Your task to perform on an android device: change the upload size in google photos Image 0: 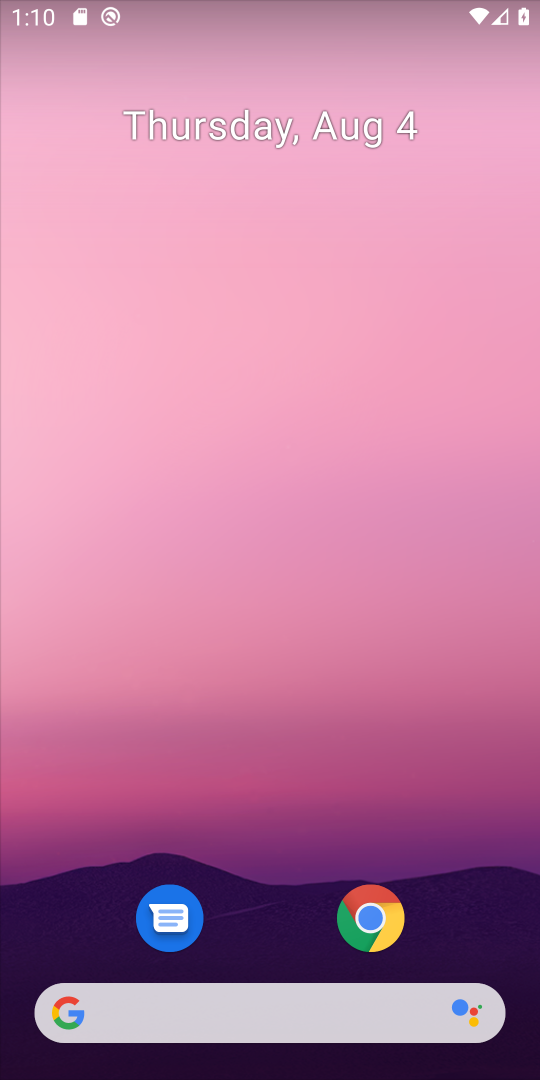
Step 0: drag from (222, 912) to (184, 325)
Your task to perform on an android device: change the upload size in google photos Image 1: 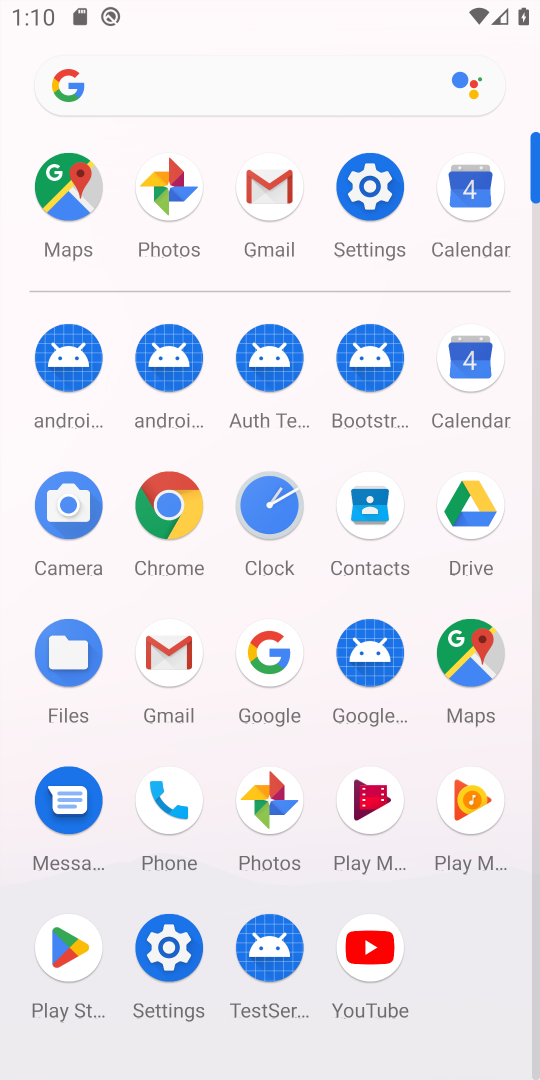
Step 1: click (144, 198)
Your task to perform on an android device: change the upload size in google photos Image 2: 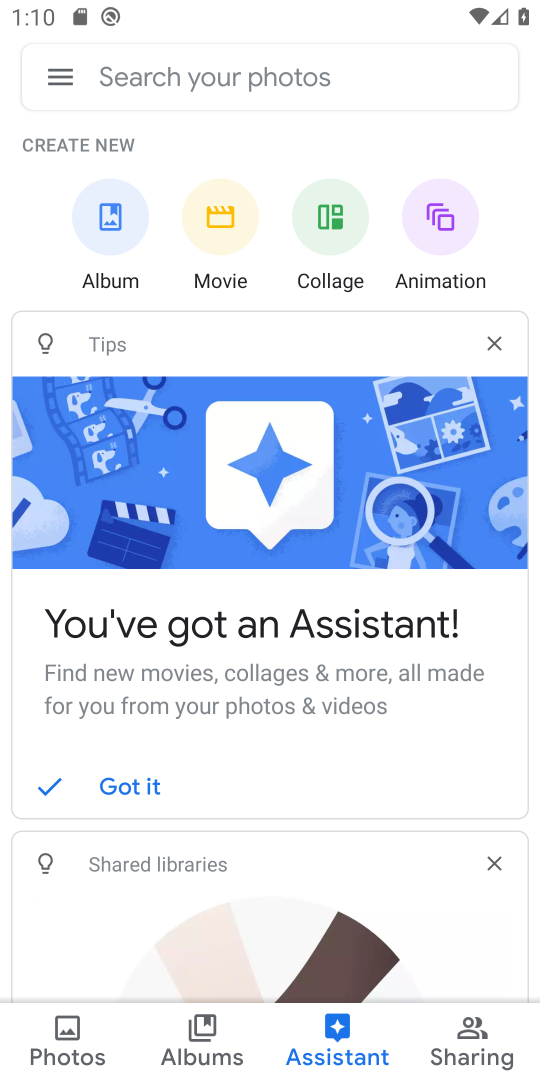
Step 2: click (77, 93)
Your task to perform on an android device: change the upload size in google photos Image 3: 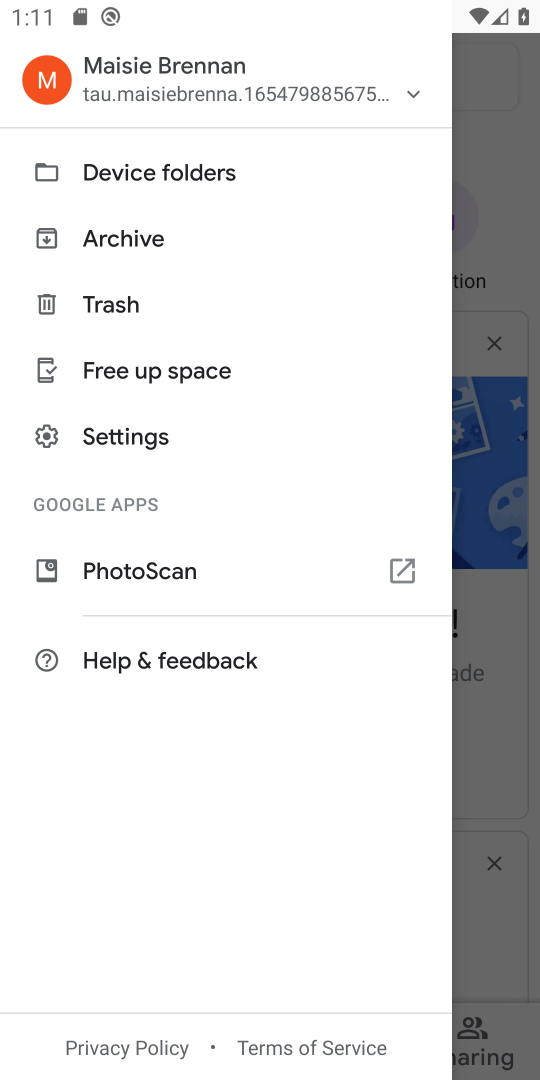
Step 3: click (90, 430)
Your task to perform on an android device: change the upload size in google photos Image 4: 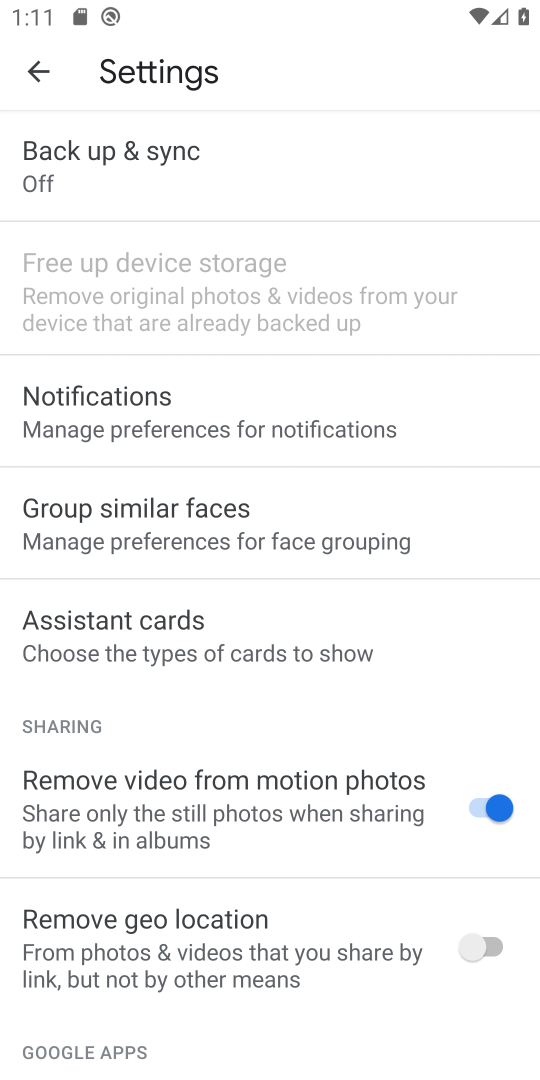
Step 4: drag from (169, 768) to (214, 333)
Your task to perform on an android device: change the upload size in google photos Image 5: 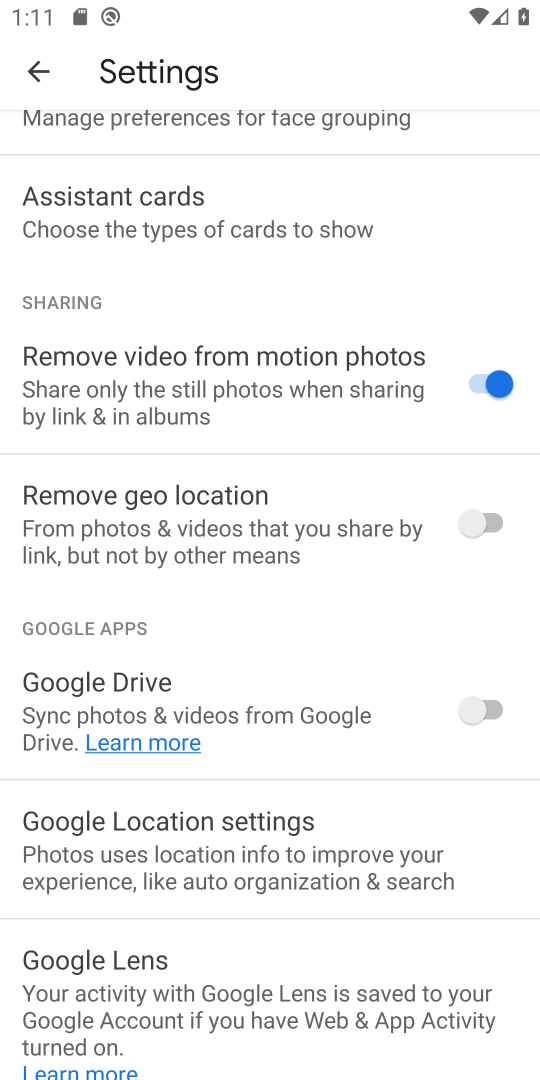
Step 5: drag from (171, 229) to (189, 1076)
Your task to perform on an android device: change the upload size in google photos Image 6: 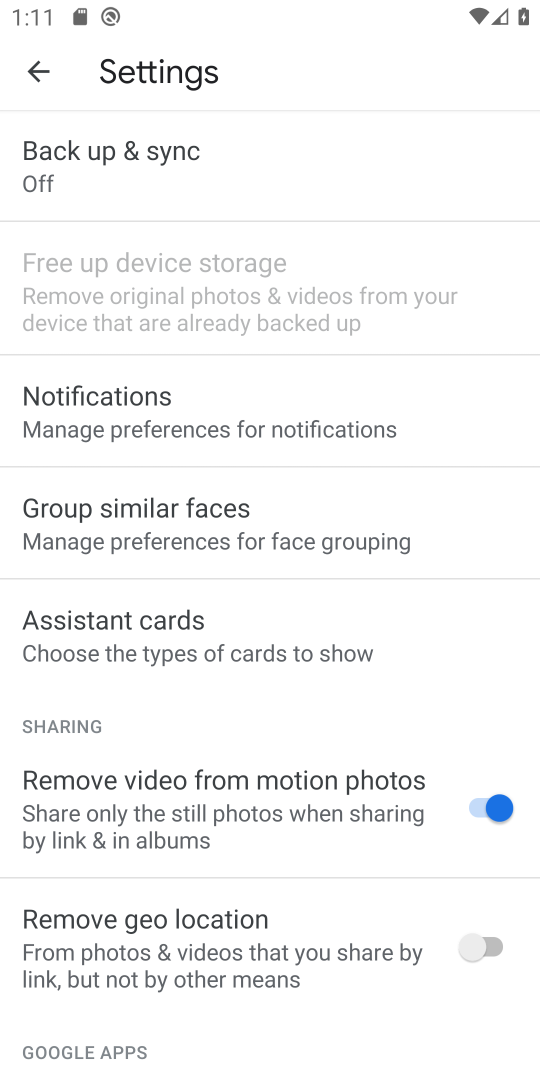
Step 6: click (169, 196)
Your task to perform on an android device: change the upload size in google photos Image 7: 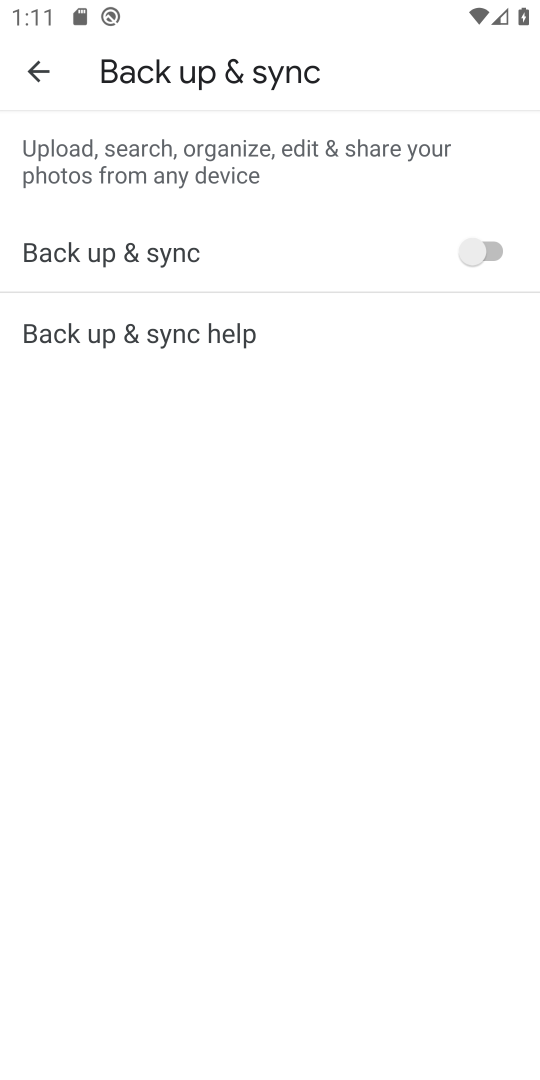
Step 7: click (489, 242)
Your task to perform on an android device: change the upload size in google photos Image 8: 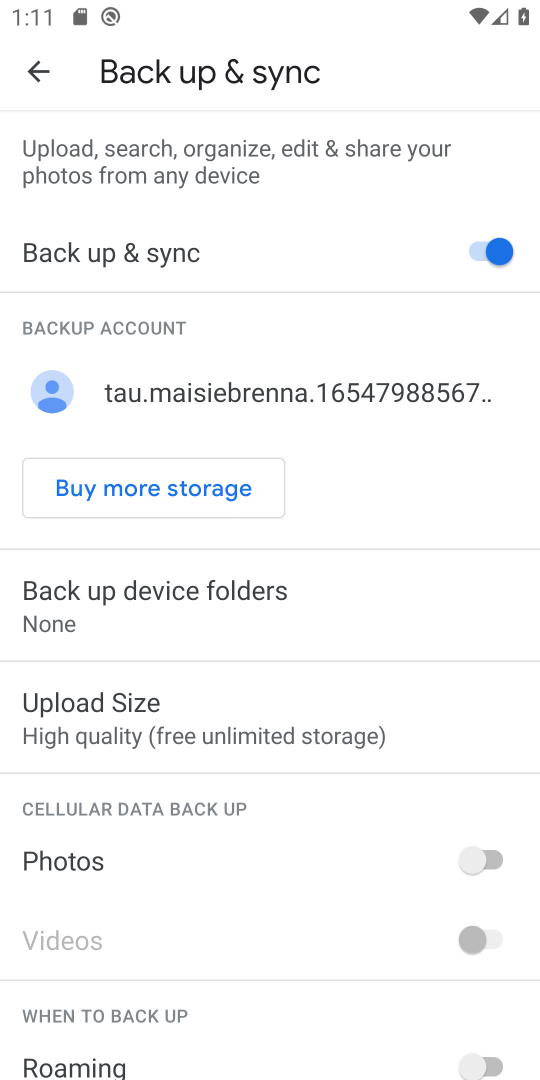
Step 8: click (190, 739)
Your task to perform on an android device: change the upload size in google photos Image 9: 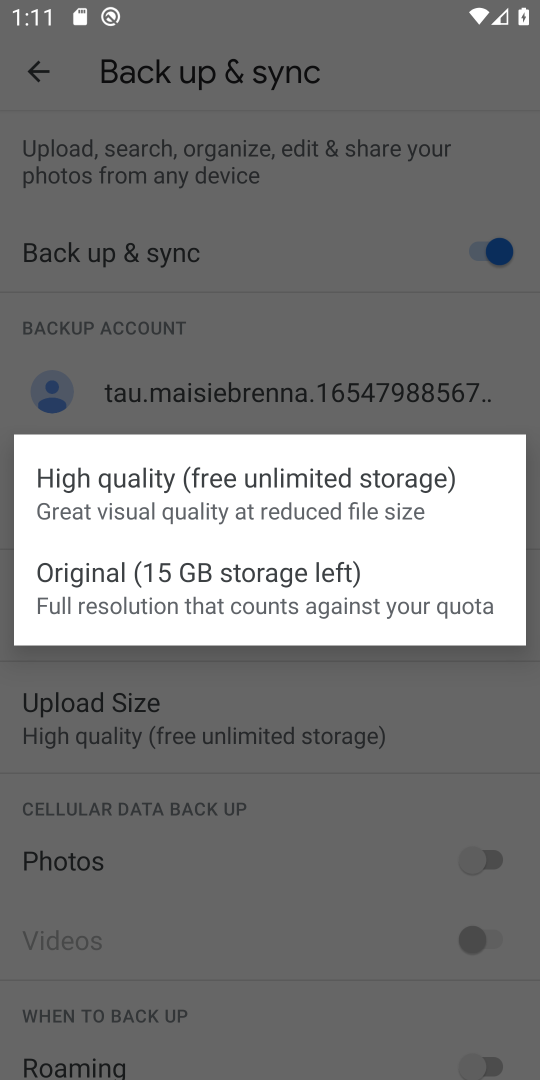
Step 9: click (165, 579)
Your task to perform on an android device: change the upload size in google photos Image 10: 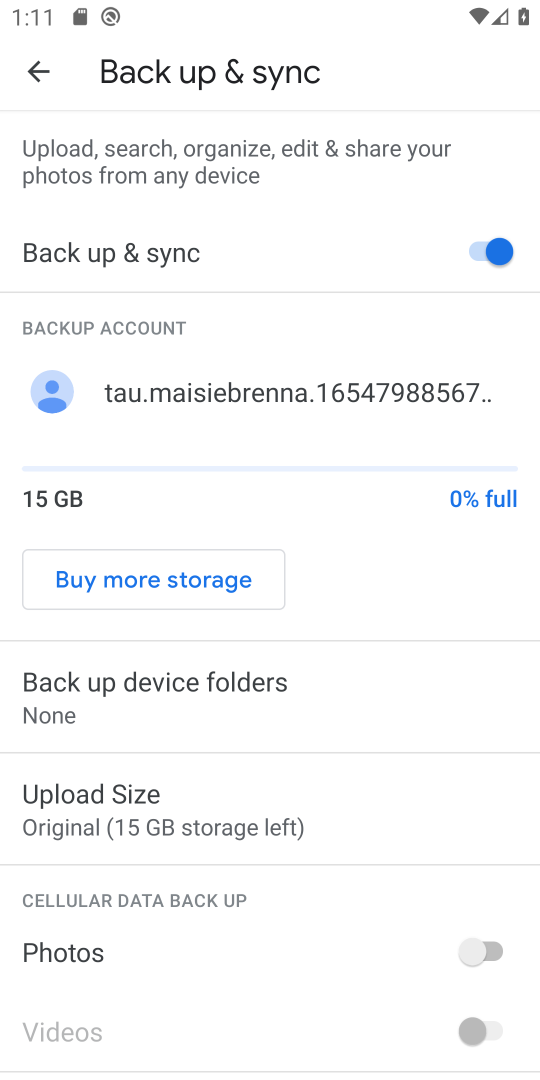
Step 10: task complete